Your task to perform on an android device: turn off location history Image 0: 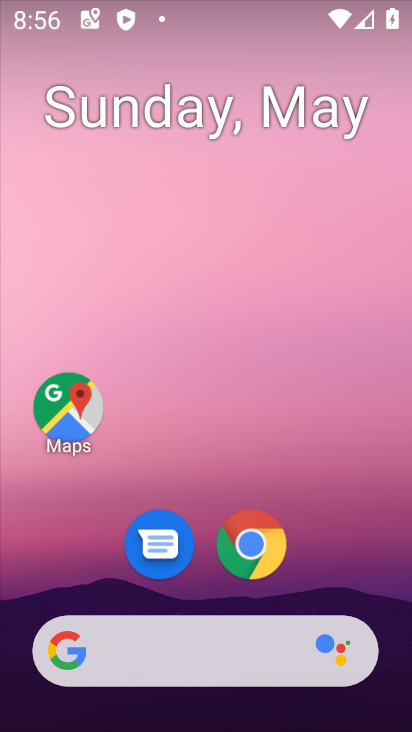
Step 0: drag from (346, 7) to (288, 8)
Your task to perform on an android device: turn off location history Image 1: 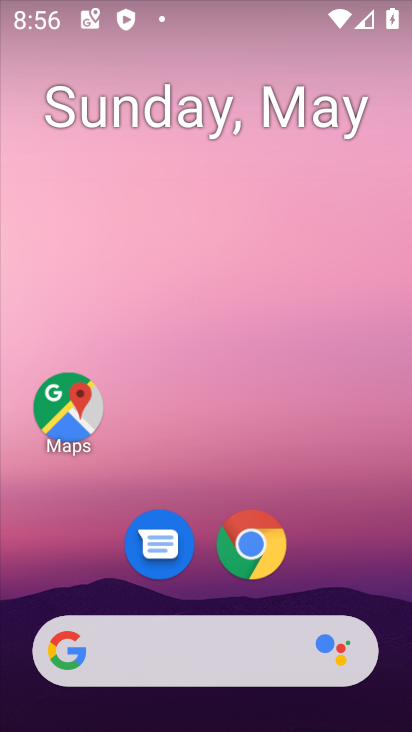
Step 1: drag from (354, 557) to (292, 2)
Your task to perform on an android device: turn off location history Image 2: 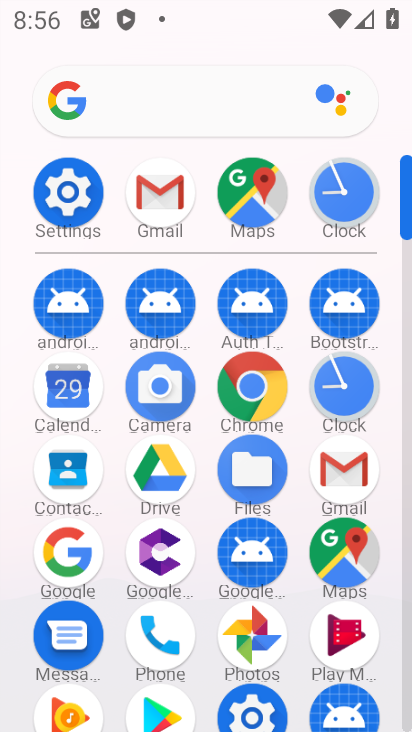
Step 2: click (94, 201)
Your task to perform on an android device: turn off location history Image 3: 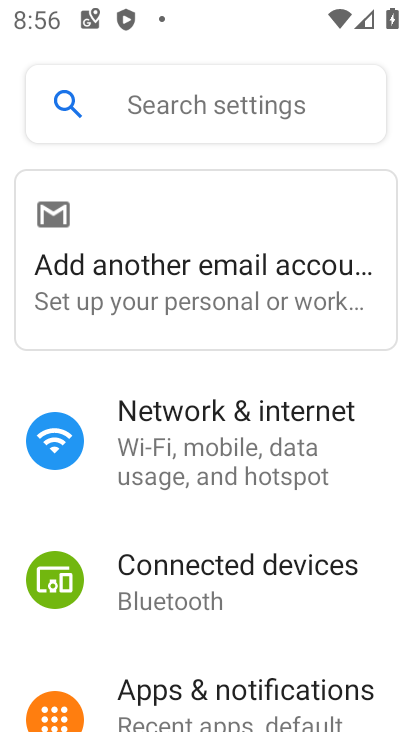
Step 3: drag from (192, 534) to (176, 143)
Your task to perform on an android device: turn off location history Image 4: 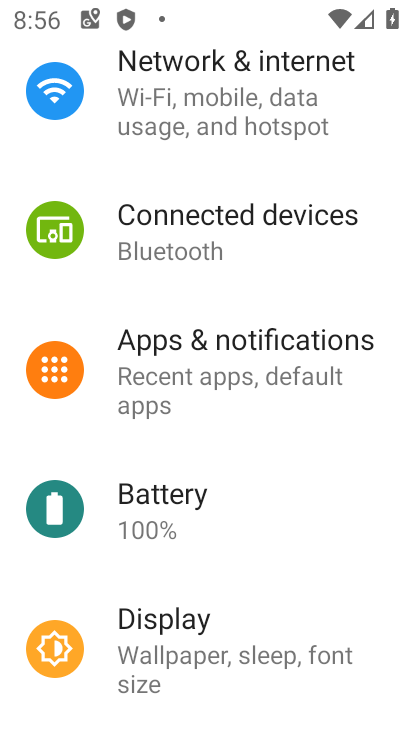
Step 4: drag from (193, 608) to (190, 108)
Your task to perform on an android device: turn off location history Image 5: 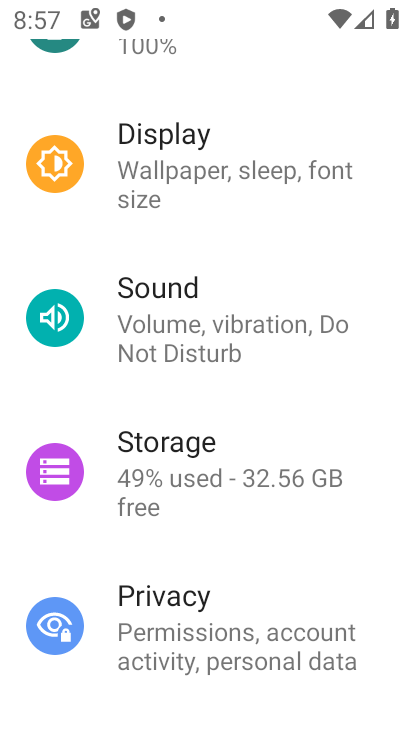
Step 5: drag from (223, 572) to (274, 102)
Your task to perform on an android device: turn off location history Image 6: 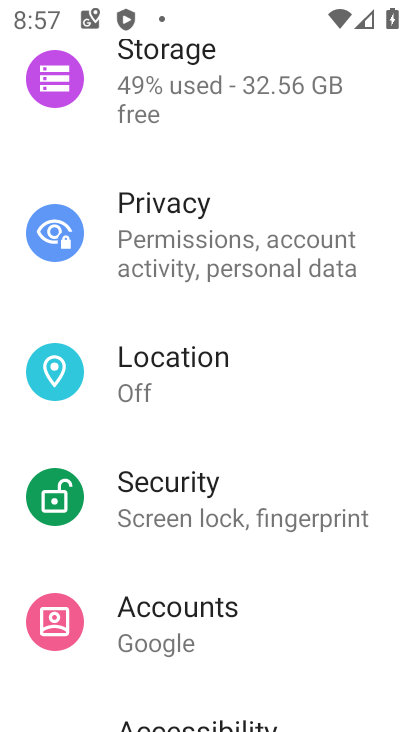
Step 6: click (194, 372)
Your task to perform on an android device: turn off location history Image 7: 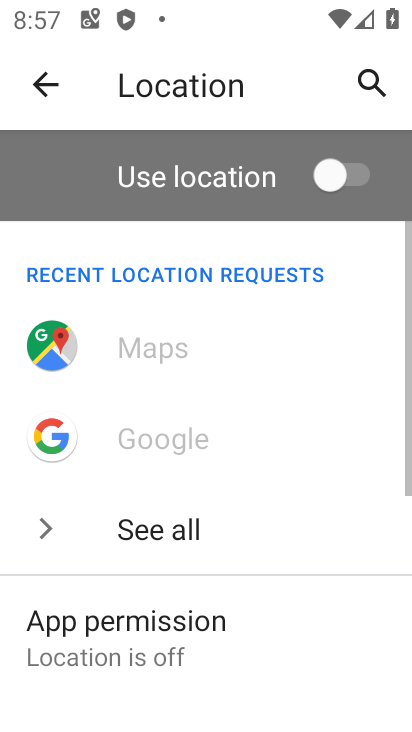
Step 7: task complete